Your task to perform on an android device: open wifi settings Image 0: 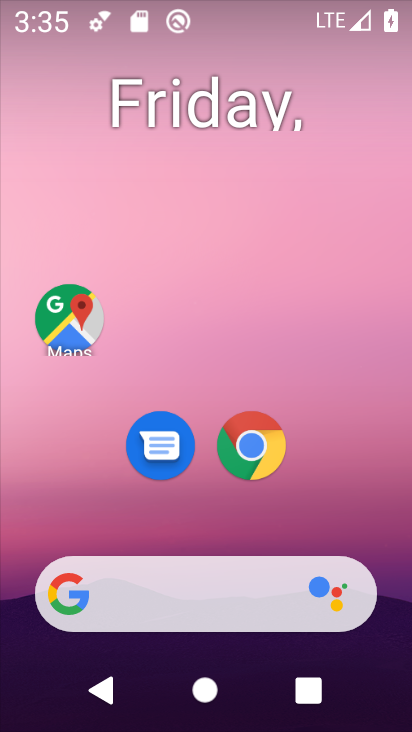
Step 0: drag from (344, 532) to (306, 149)
Your task to perform on an android device: open wifi settings Image 1: 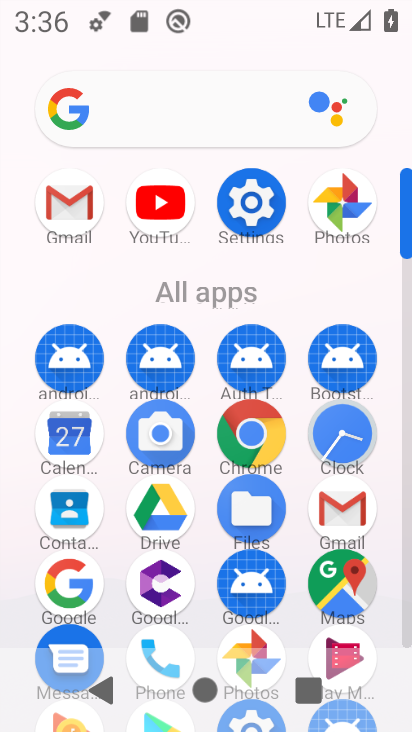
Step 1: click (267, 209)
Your task to perform on an android device: open wifi settings Image 2: 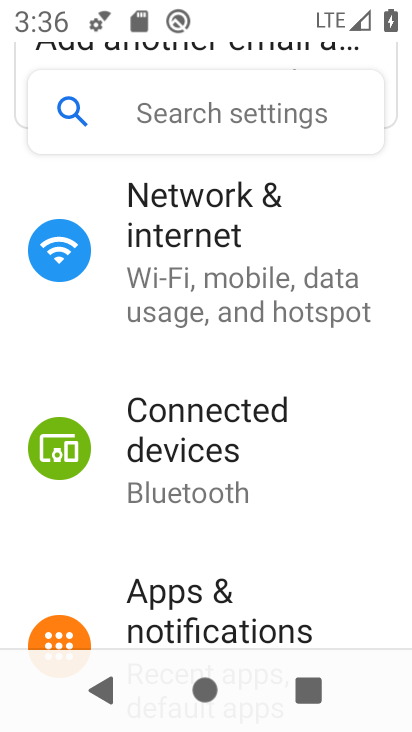
Step 2: click (308, 288)
Your task to perform on an android device: open wifi settings Image 3: 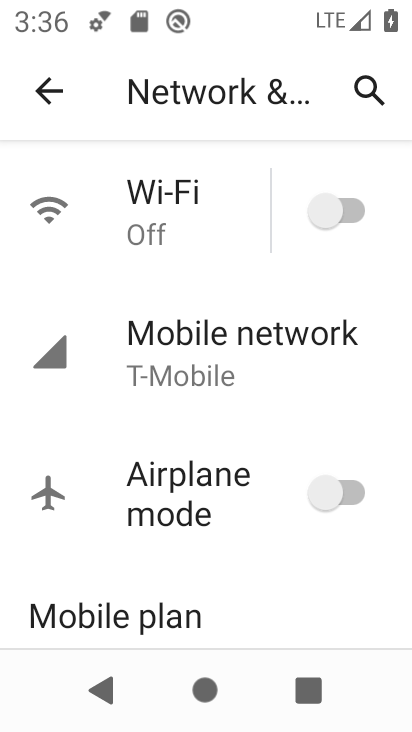
Step 3: click (222, 229)
Your task to perform on an android device: open wifi settings Image 4: 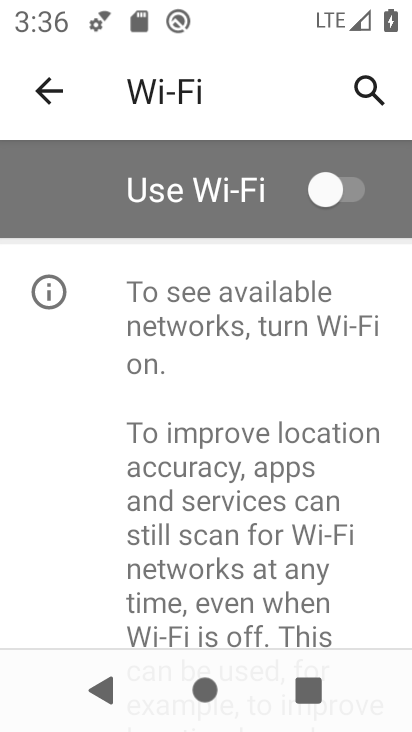
Step 4: task complete